Your task to perform on an android device: turn on airplane mode Image 0: 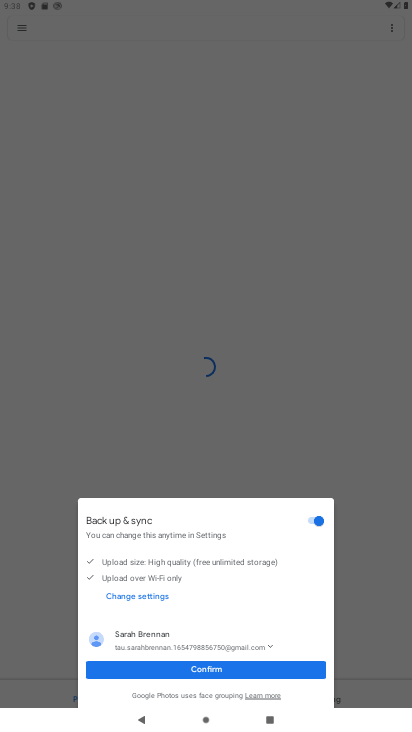
Step 0: press home button
Your task to perform on an android device: turn on airplane mode Image 1: 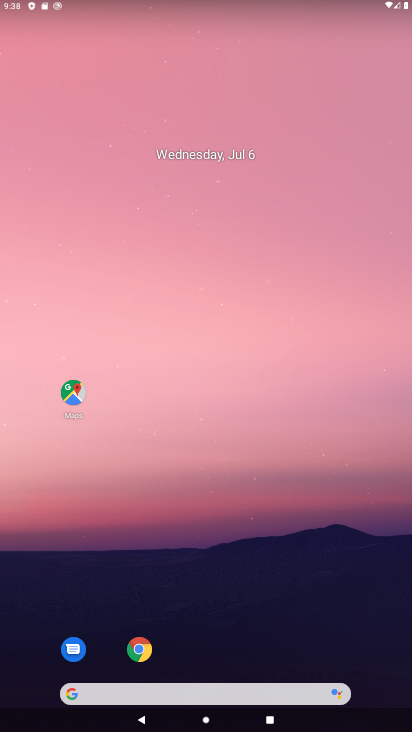
Step 1: drag from (375, 660) to (289, 161)
Your task to perform on an android device: turn on airplane mode Image 2: 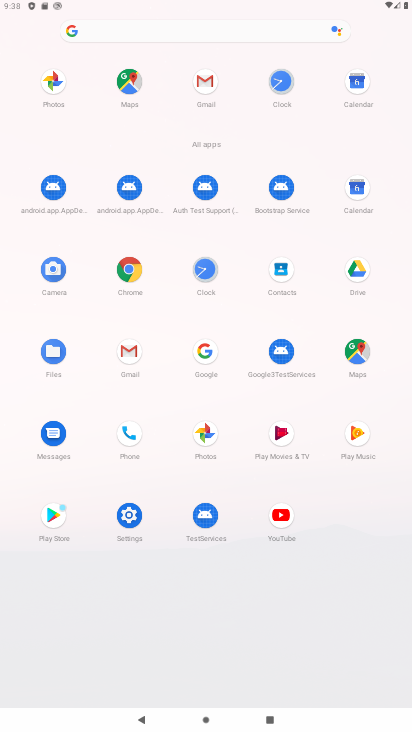
Step 2: click (121, 519)
Your task to perform on an android device: turn on airplane mode Image 3: 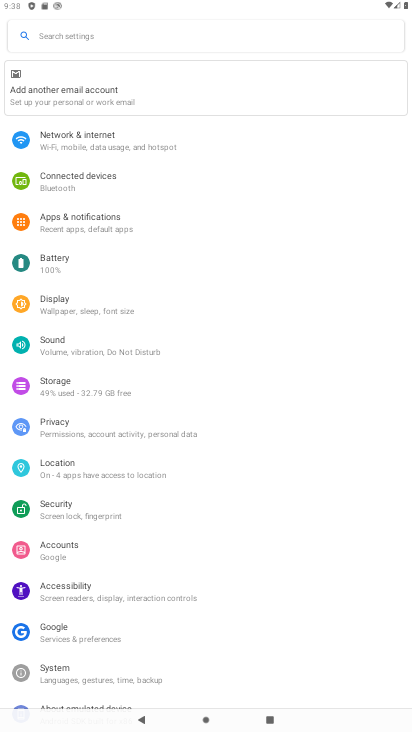
Step 3: click (77, 146)
Your task to perform on an android device: turn on airplane mode Image 4: 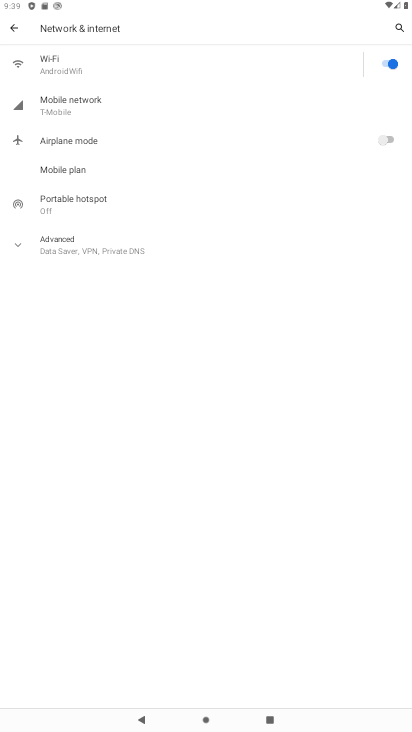
Step 4: click (388, 137)
Your task to perform on an android device: turn on airplane mode Image 5: 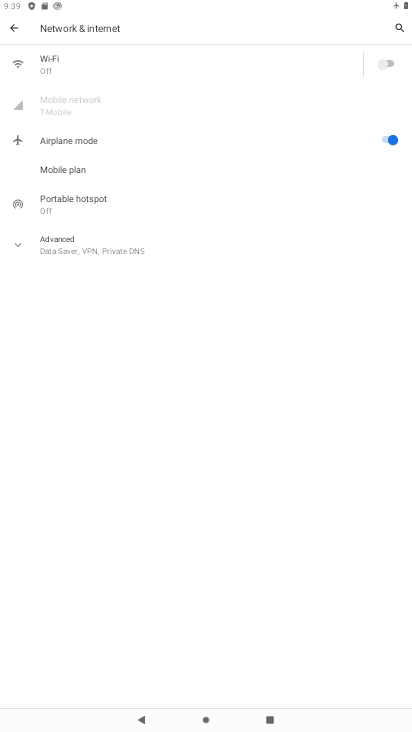
Step 5: task complete